Your task to perform on an android device: Open calendar and show me the fourth week of next month Image 0: 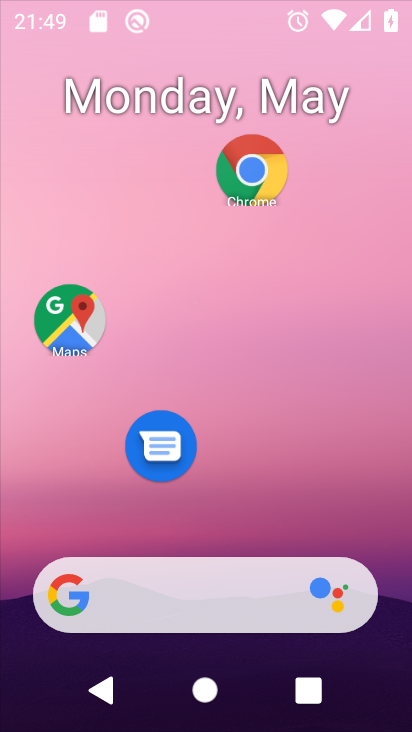
Step 0: press home button
Your task to perform on an android device: Open calendar and show me the fourth week of next month Image 1: 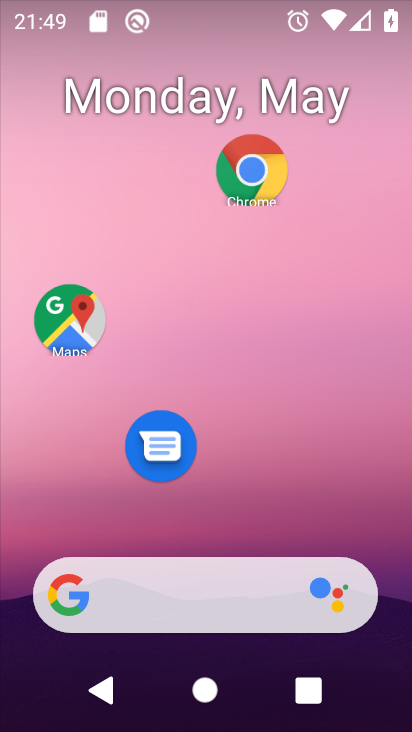
Step 1: drag from (239, 528) to (240, 56)
Your task to perform on an android device: Open calendar and show me the fourth week of next month Image 2: 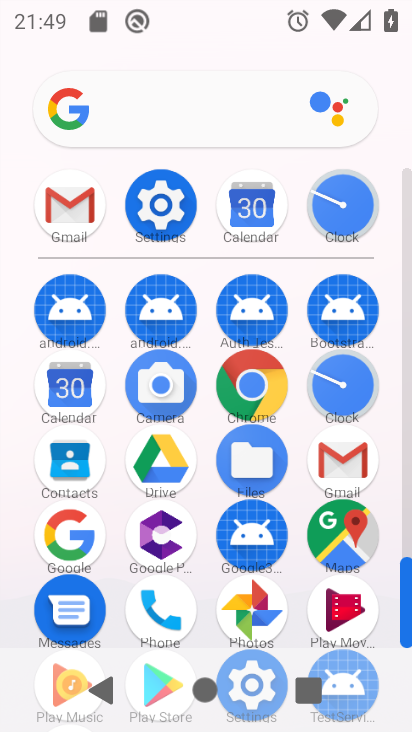
Step 2: click (71, 386)
Your task to perform on an android device: Open calendar and show me the fourth week of next month Image 3: 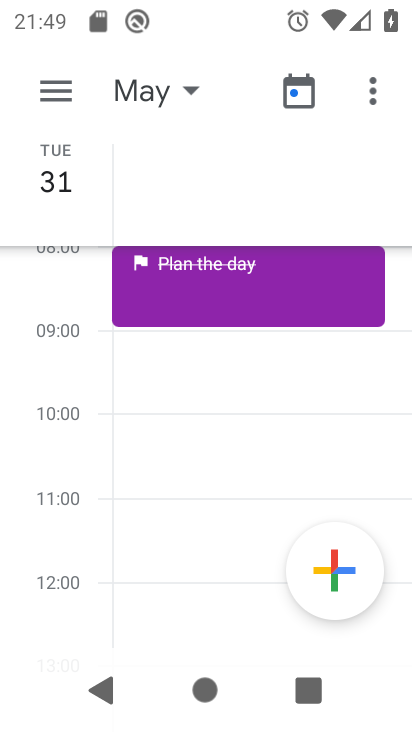
Step 3: click (187, 89)
Your task to perform on an android device: Open calendar and show me the fourth week of next month Image 4: 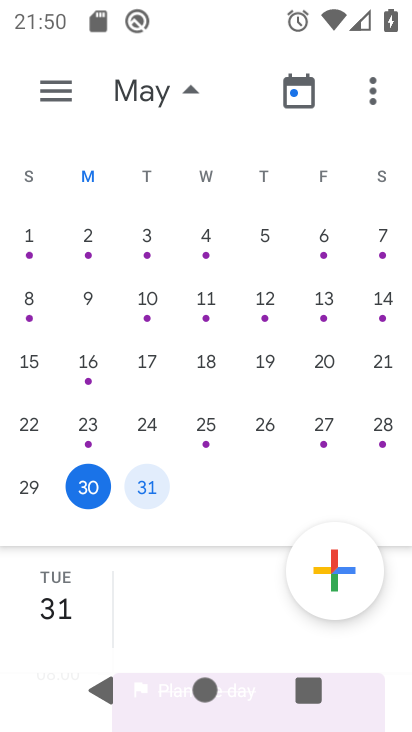
Step 4: drag from (357, 292) to (9, 296)
Your task to perform on an android device: Open calendar and show me the fourth week of next month Image 5: 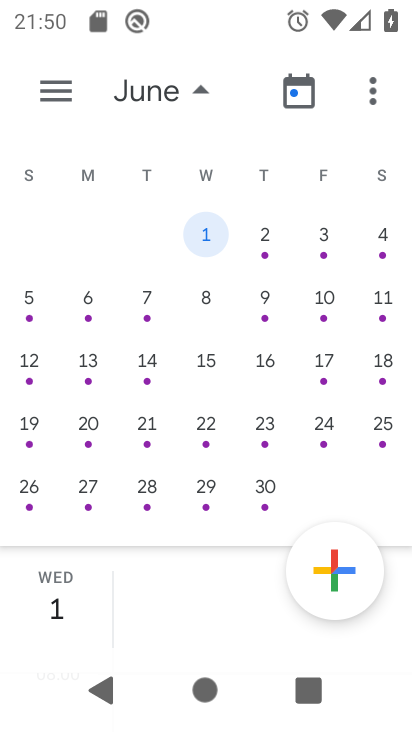
Step 5: click (36, 428)
Your task to perform on an android device: Open calendar and show me the fourth week of next month Image 6: 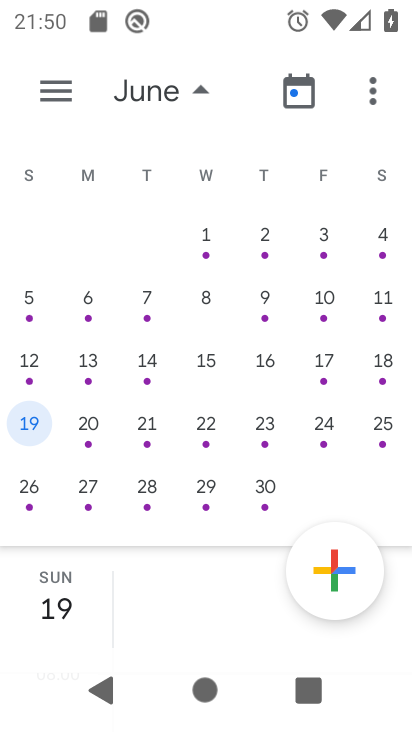
Step 6: click (199, 84)
Your task to perform on an android device: Open calendar and show me the fourth week of next month Image 7: 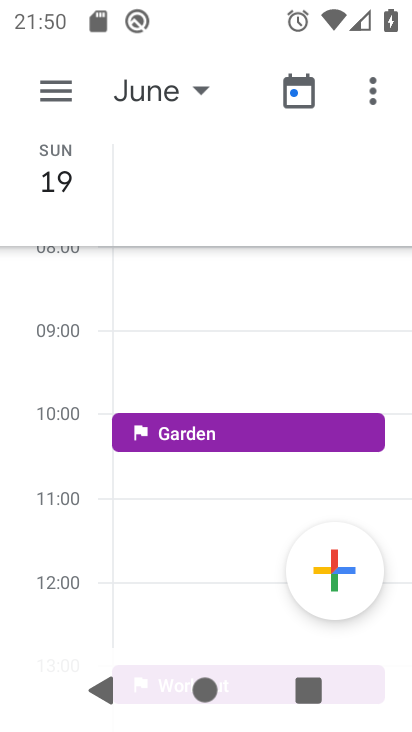
Step 7: click (88, 197)
Your task to perform on an android device: Open calendar and show me the fourth week of next month Image 8: 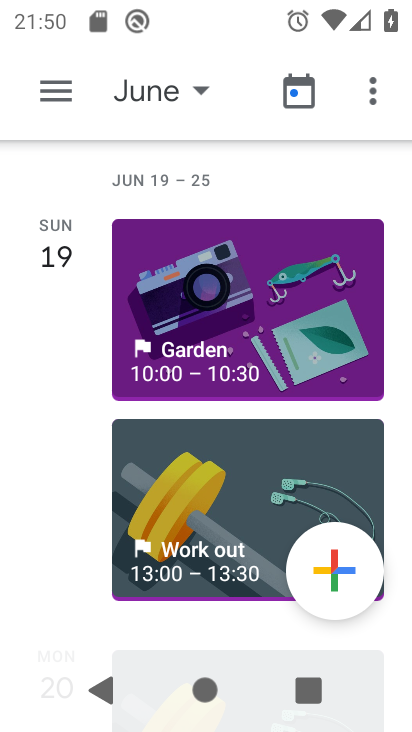
Step 8: task complete